Your task to perform on an android device: Go to network settings Image 0: 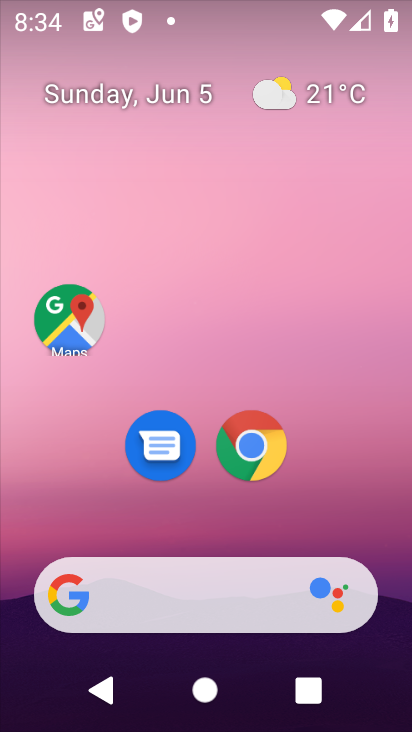
Step 0: drag from (362, 491) to (331, 114)
Your task to perform on an android device: Go to network settings Image 1: 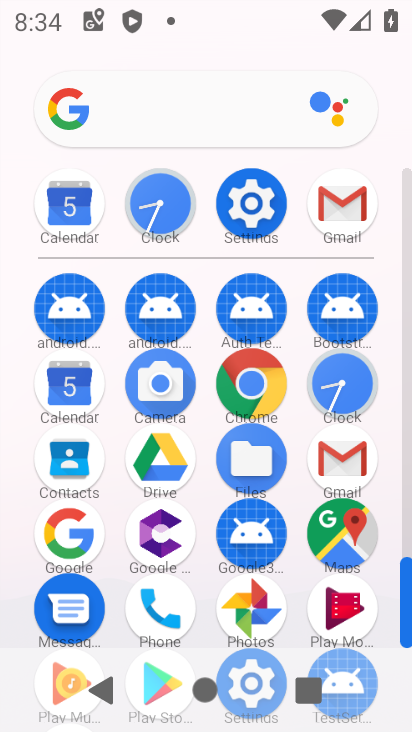
Step 1: click (261, 187)
Your task to perform on an android device: Go to network settings Image 2: 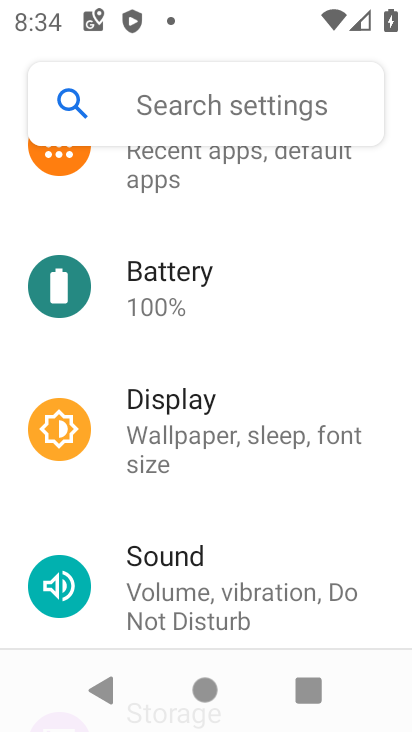
Step 2: drag from (315, 216) to (338, 610)
Your task to perform on an android device: Go to network settings Image 3: 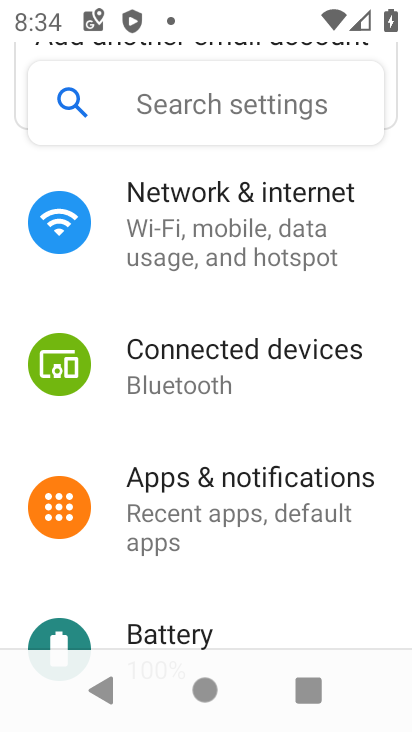
Step 3: click (219, 225)
Your task to perform on an android device: Go to network settings Image 4: 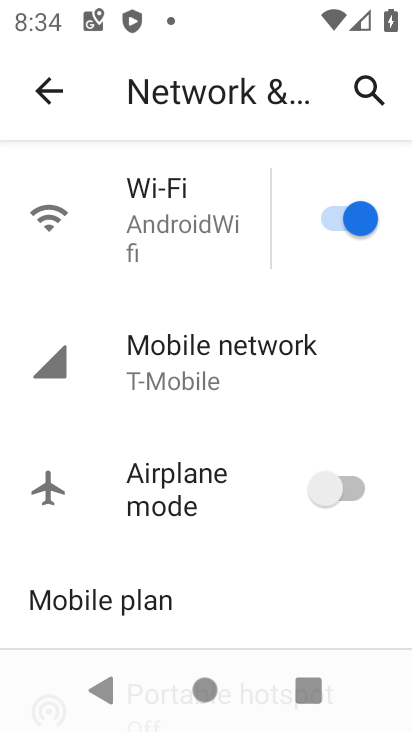
Step 4: click (212, 353)
Your task to perform on an android device: Go to network settings Image 5: 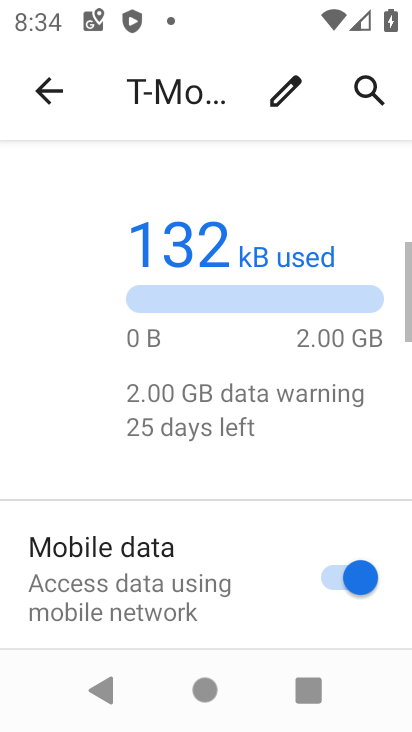
Step 5: task complete